Your task to perform on an android device: Go to Amazon Image 0: 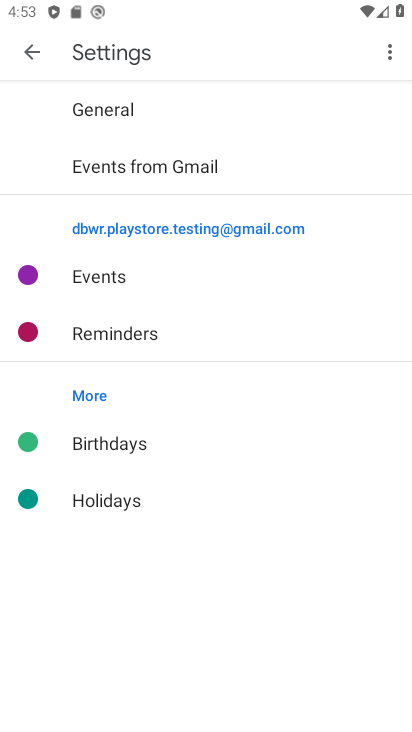
Step 0: press back button
Your task to perform on an android device: Go to Amazon Image 1: 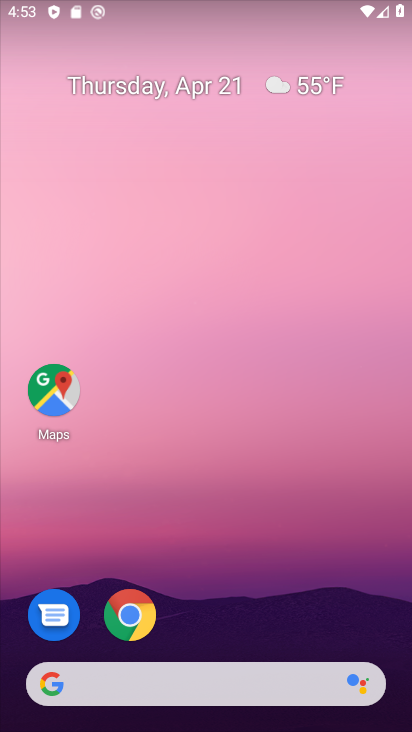
Step 1: drag from (223, 553) to (203, 45)
Your task to perform on an android device: Go to Amazon Image 2: 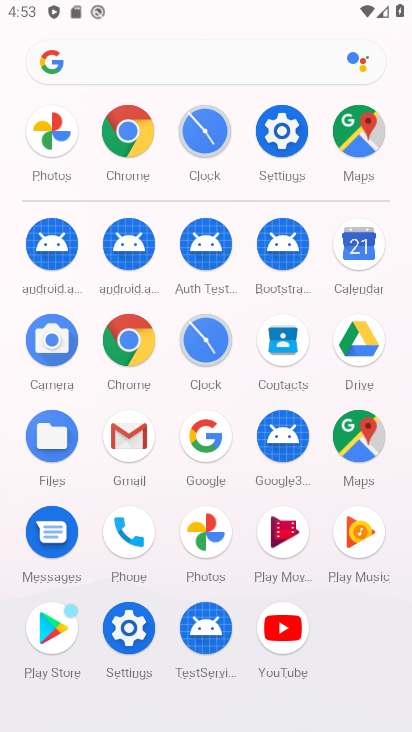
Step 2: drag from (0, 477) to (13, 223)
Your task to perform on an android device: Go to Amazon Image 3: 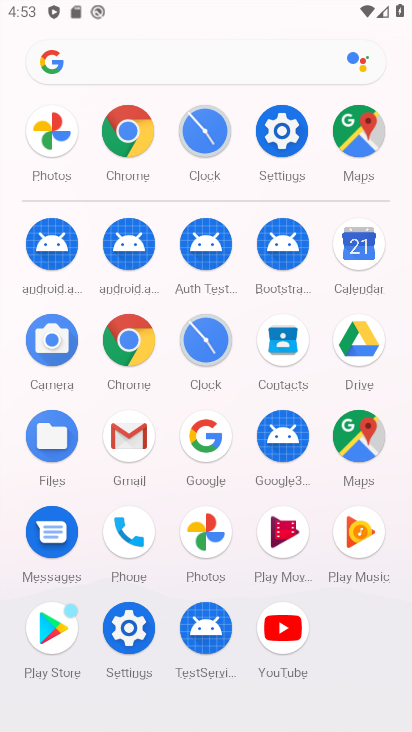
Step 3: click (127, 345)
Your task to perform on an android device: Go to Amazon Image 4: 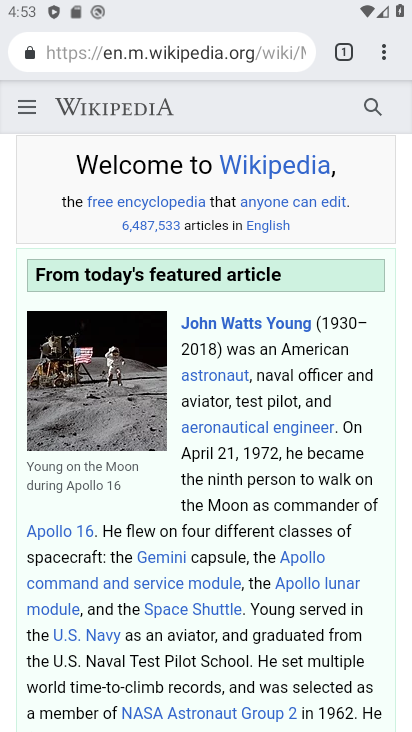
Step 4: click (310, 548)
Your task to perform on an android device: Go to Amazon Image 5: 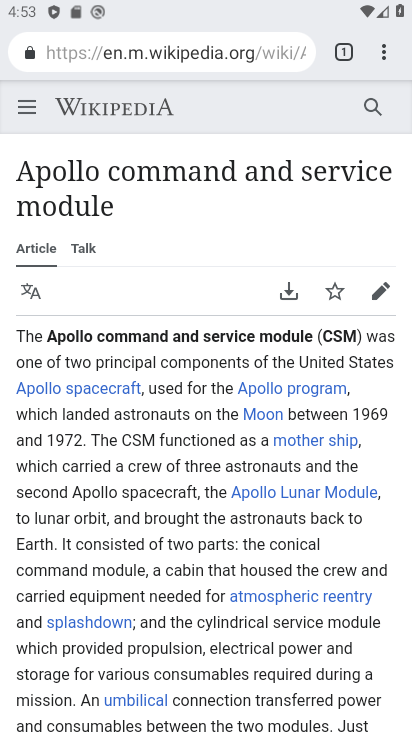
Step 5: click (172, 55)
Your task to perform on an android device: Go to Amazon Image 6: 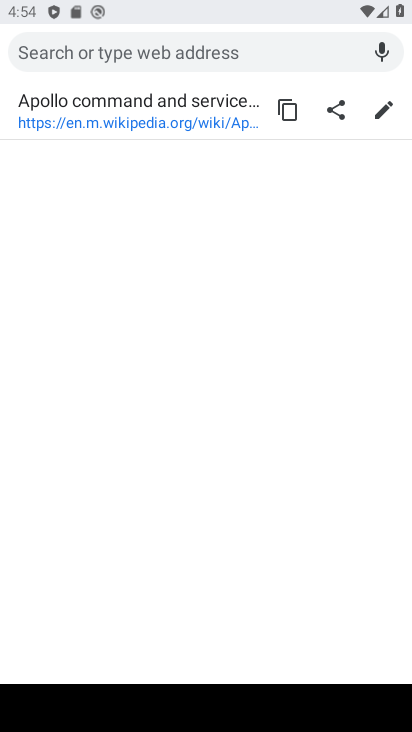
Step 6: type "Amazon"
Your task to perform on an android device: Go to Amazon Image 7: 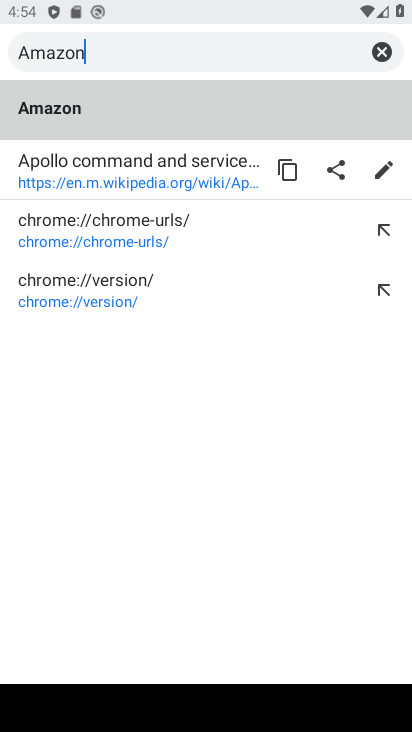
Step 7: type ""
Your task to perform on an android device: Go to Amazon Image 8: 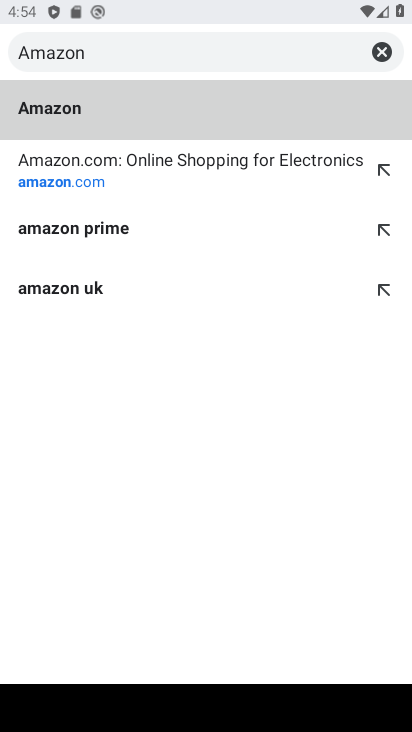
Step 8: click (107, 109)
Your task to perform on an android device: Go to Amazon Image 9: 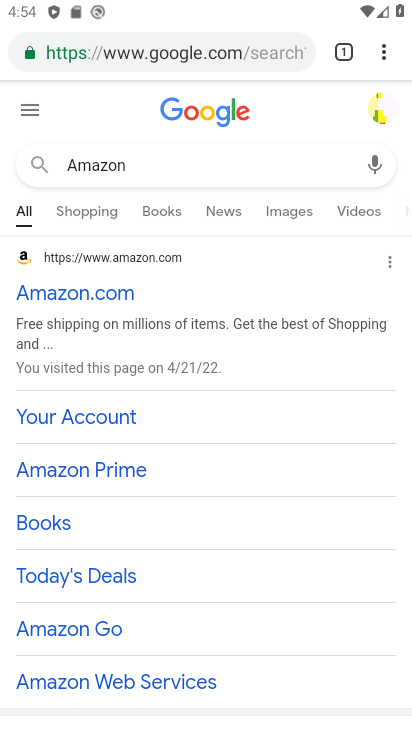
Step 9: click (82, 282)
Your task to perform on an android device: Go to Amazon Image 10: 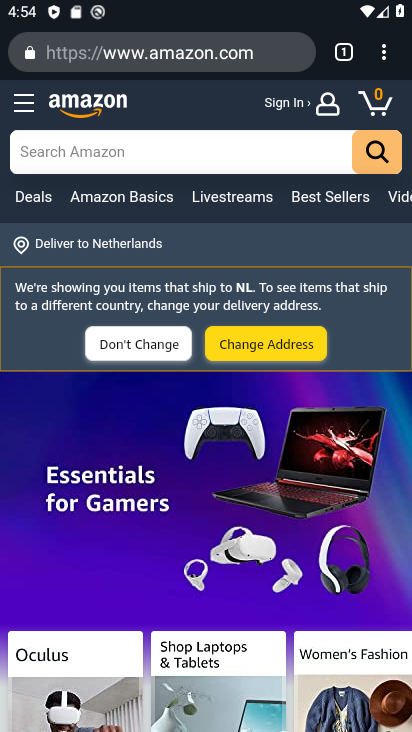
Step 10: task complete